Your task to perform on an android device: Show me recent news Image 0: 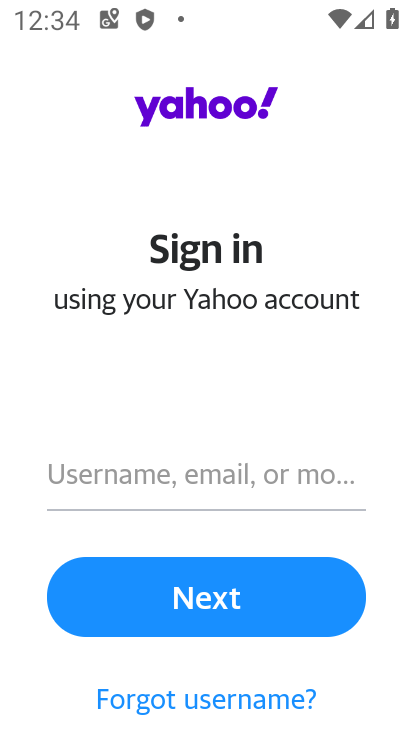
Step 0: press home button
Your task to perform on an android device: Show me recent news Image 1: 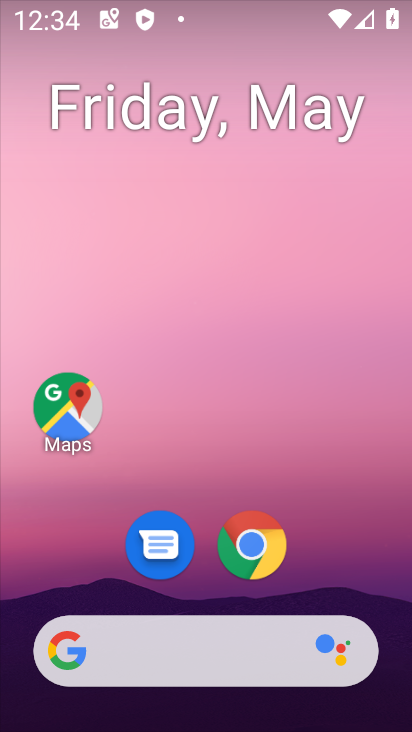
Step 1: click (253, 540)
Your task to perform on an android device: Show me recent news Image 2: 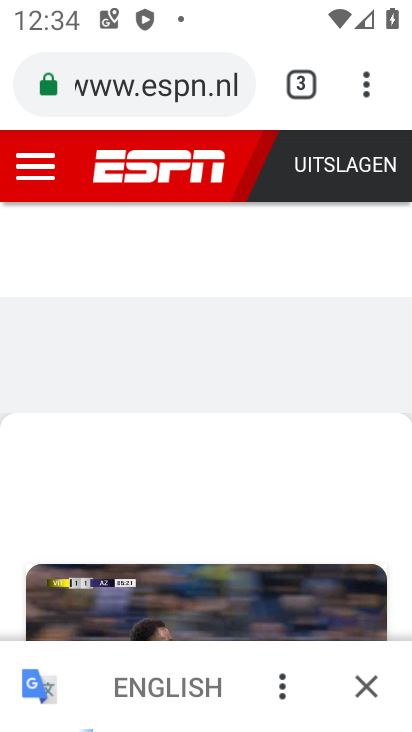
Step 2: click (374, 80)
Your task to perform on an android device: Show me recent news Image 3: 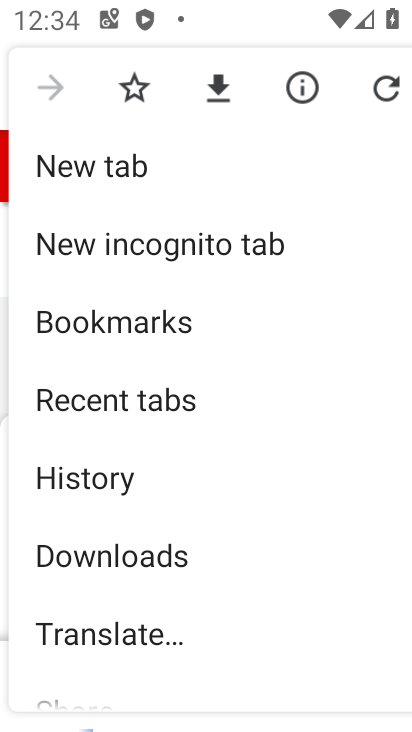
Step 3: click (89, 151)
Your task to perform on an android device: Show me recent news Image 4: 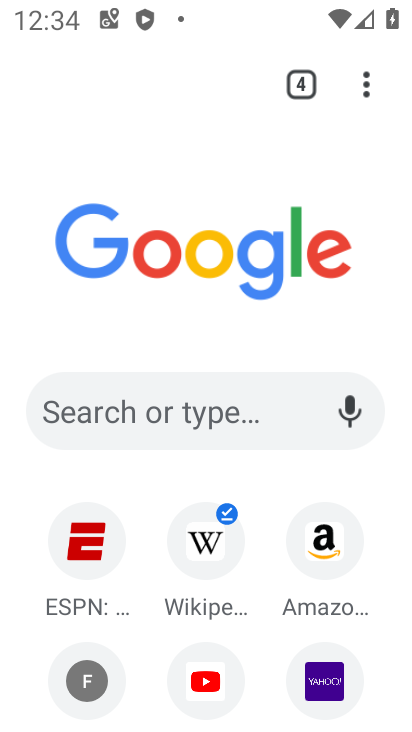
Step 4: click (258, 387)
Your task to perform on an android device: Show me recent news Image 5: 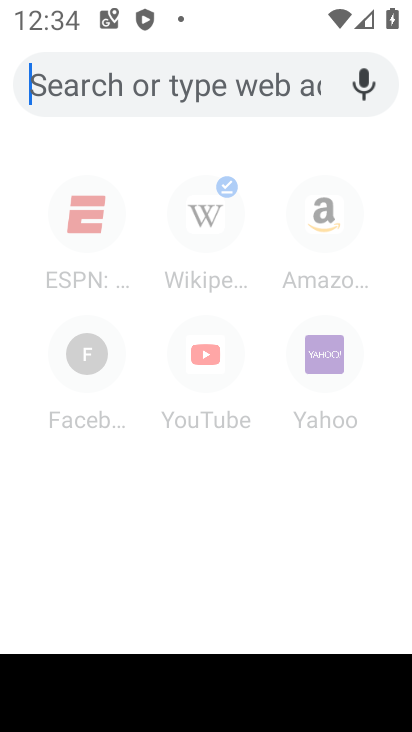
Step 5: type "Show me recent news"
Your task to perform on an android device: Show me recent news Image 6: 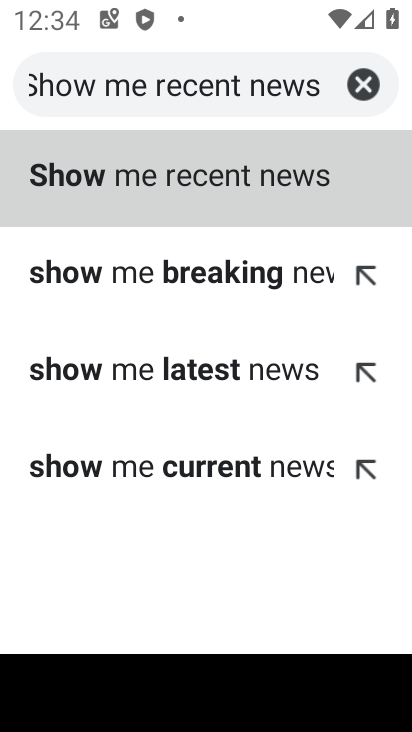
Step 6: click (272, 174)
Your task to perform on an android device: Show me recent news Image 7: 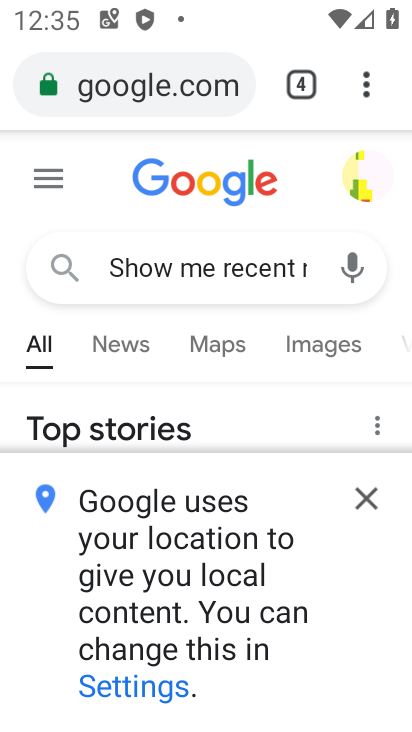
Step 7: task complete